Your task to perform on an android device: open a bookmark in the chrome app Image 0: 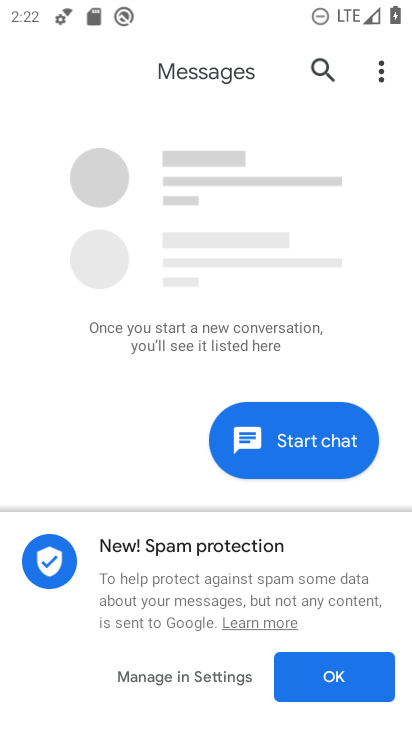
Step 0: press home button
Your task to perform on an android device: open a bookmark in the chrome app Image 1: 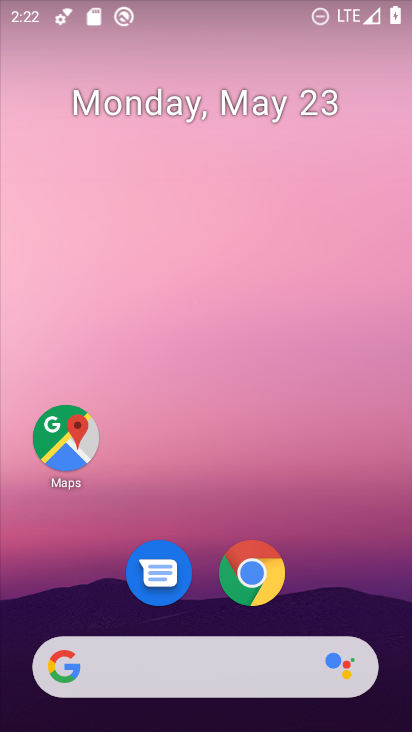
Step 1: click (254, 578)
Your task to perform on an android device: open a bookmark in the chrome app Image 2: 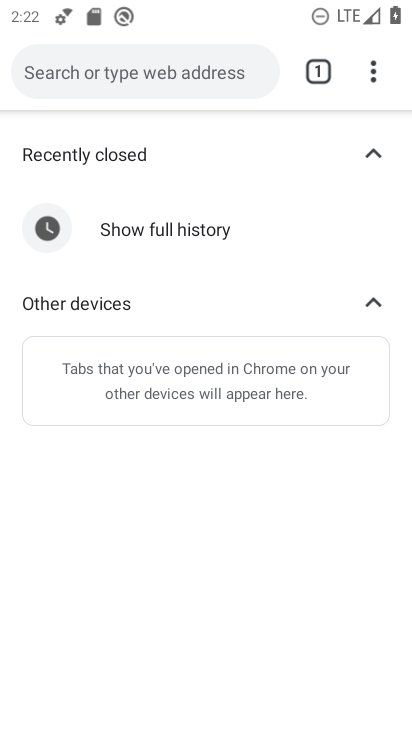
Step 2: task complete